Your task to perform on an android device: toggle notifications settings in the gmail app Image 0: 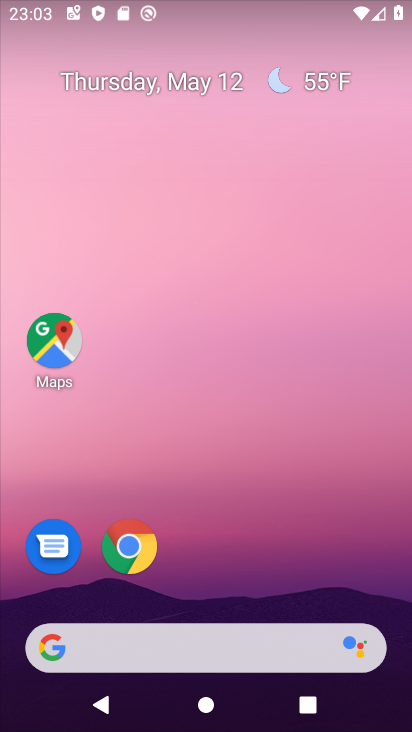
Step 0: drag from (192, 594) to (234, 256)
Your task to perform on an android device: toggle notifications settings in the gmail app Image 1: 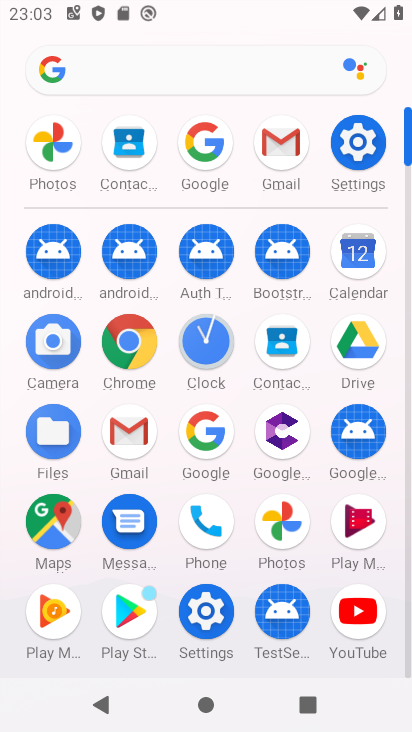
Step 1: click (286, 143)
Your task to perform on an android device: toggle notifications settings in the gmail app Image 2: 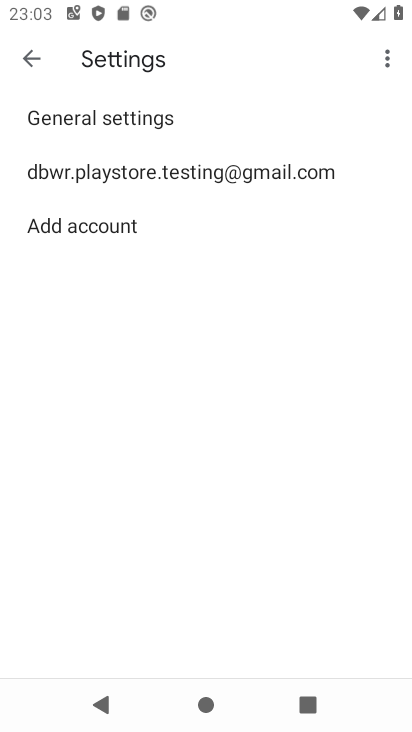
Step 2: click (196, 176)
Your task to perform on an android device: toggle notifications settings in the gmail app Image 3: 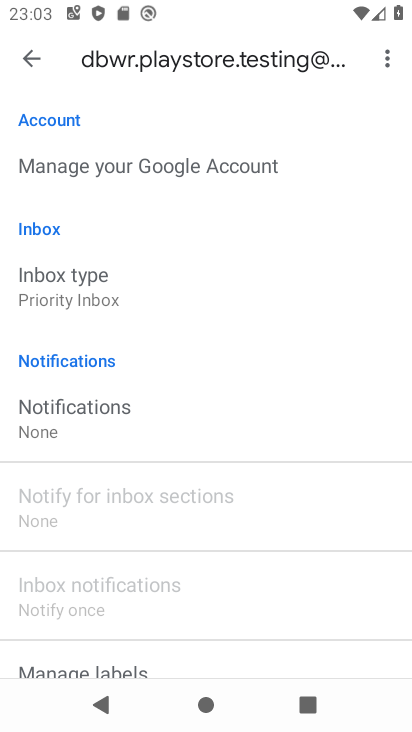
Step 3: drag from (184, 588) to (260, 254)
Your task to perform on an android device: toggle notifications settings in the gmail app Image 4: 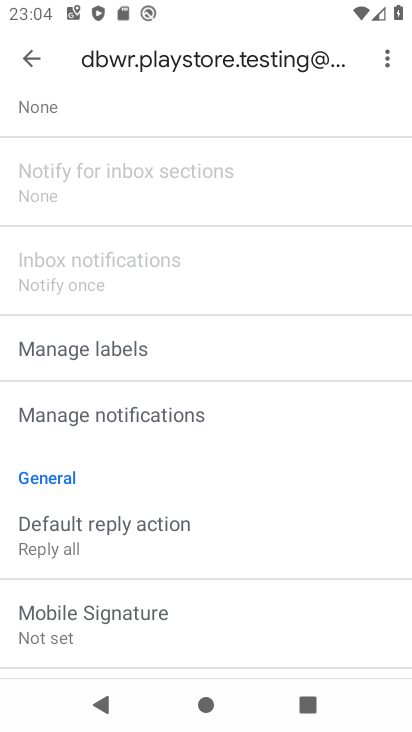
Step 4: drag from (221, 587) to (278, 243)
Your task to perform on an android device: toggle notifications settings in the gmail app Image 5: 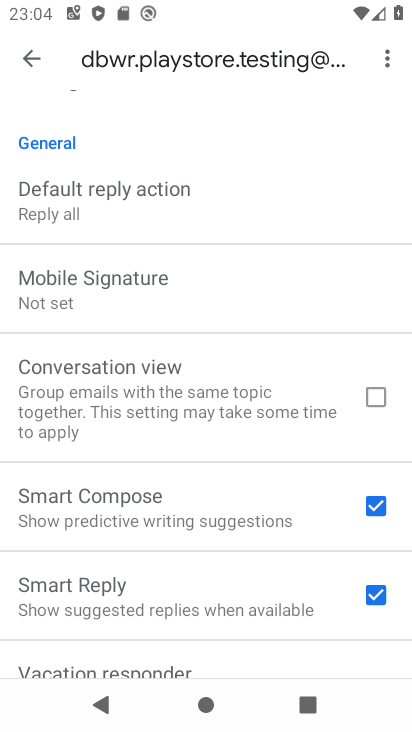
Step 5: drag from (151, 193) to (129, 640)
Your task to perform on an android device: toggle notifications settings in the gmail app Image 6: 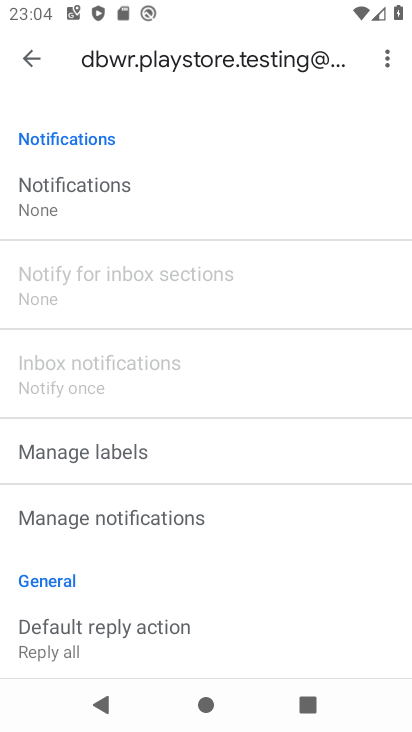
Step 6: click (119, 190)
Your task to perform on an android device: toggle notifications settings in the gmail app Image 7: 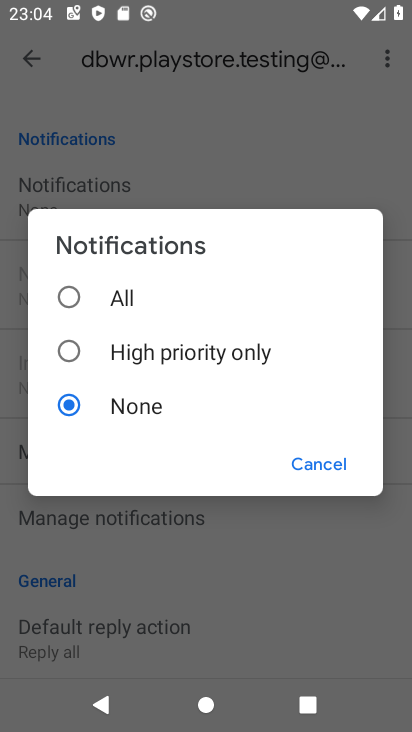
Step 7: click (107, 307)
Your task to perform on an android device: toggle notifications settings in the gmail app Image 8: 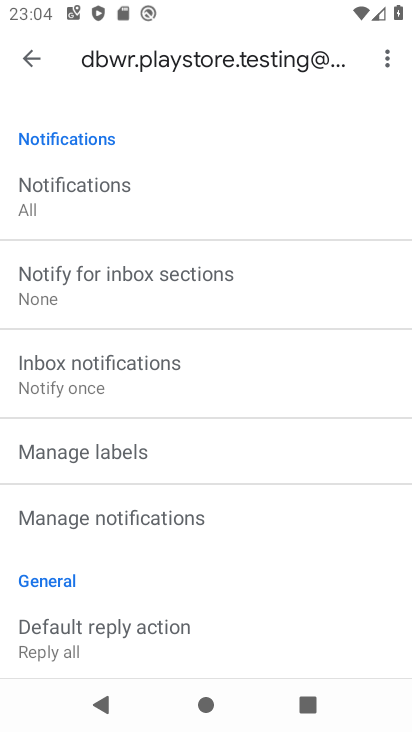
Step 8: task complete